Your task to perform on an android device: Go to accessibility settings Image 0: 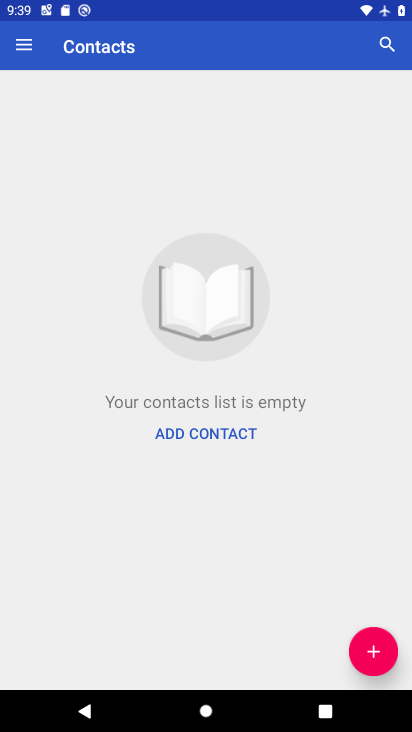
Step 0: press home button
Your task to perform on an android device: Go to accessibility settings Image 1: 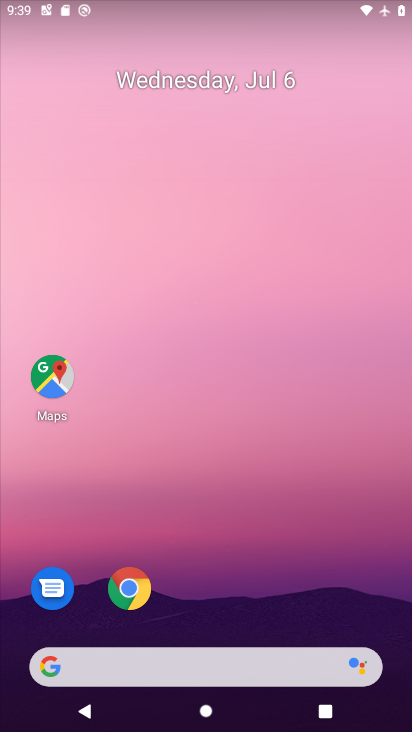
Step 1: drag from (156, 662) to (316, 5)
Your task to perform on an android device: Go to accessibility settings Image 2: 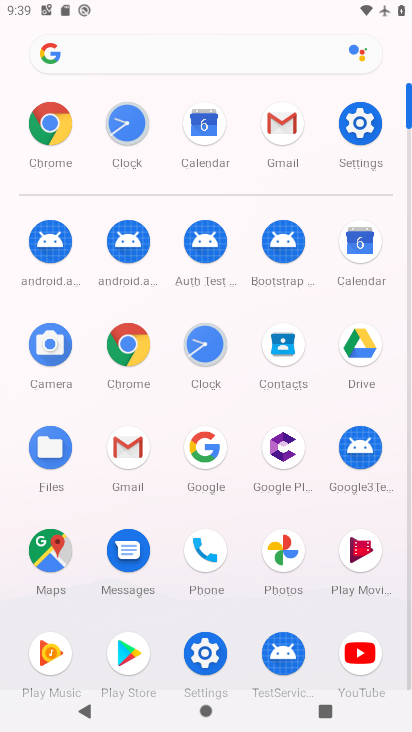
Step 2: click (362, 124)
Your task to perform on an android device: Go to accessibility settings Image 3: 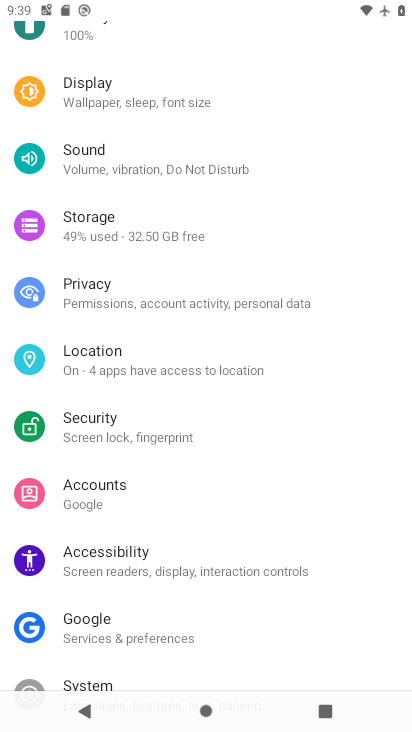
Step 3: click (133, 564)
Your task to perform on an android device: Go to accessibility settings Image 4: 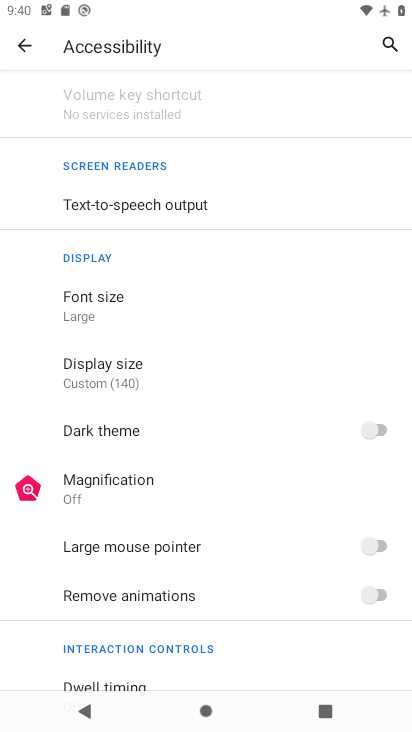
Step 4: task complete